Your task to perform on an android device: What's on the menu at Denny's? Image 0: 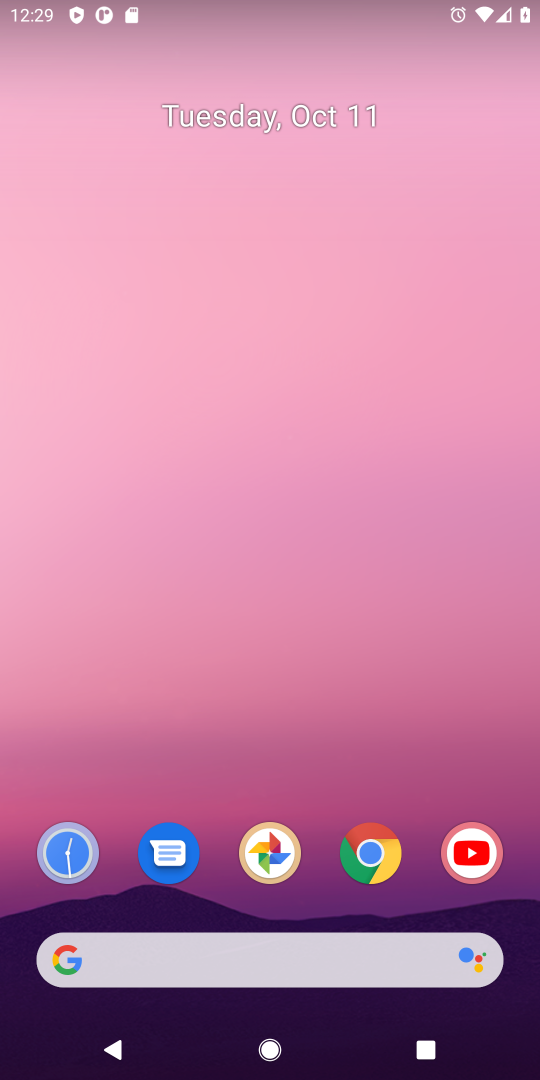
Step 0: drag from (277, 917) to (313, 22)
Your task to perform on an android device: What's on the menu at Denny's? Image 1: 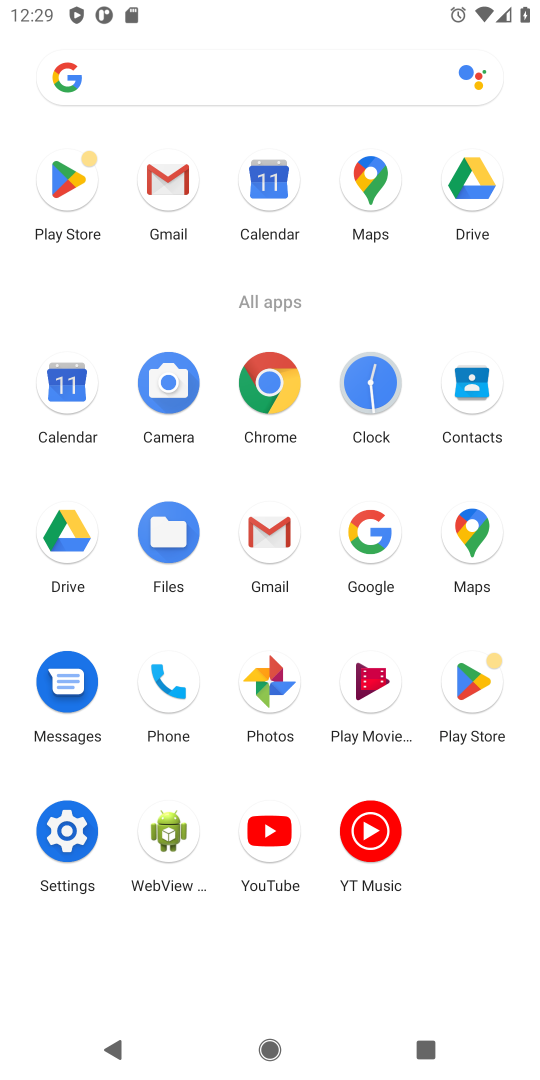
Step 1: click (257, 390)
Your task to perform on an android device: What's on the menu at Denny's? Image 2: 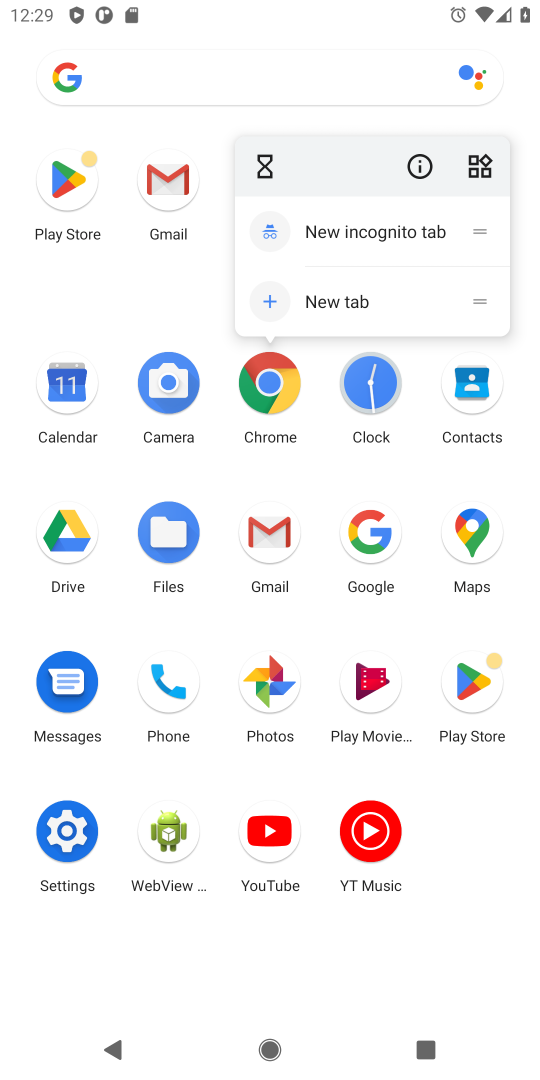
Step 2: click (264, 409)
Your task to perform on an android device: What's on the menu at Denny's? Image 3: 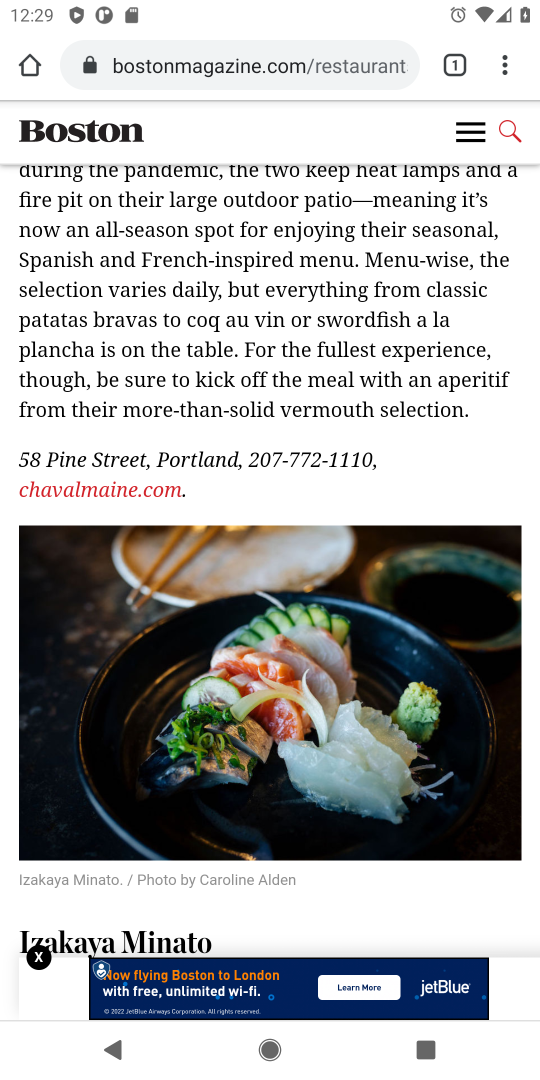
Step 3: click (252, 43)
Your task to perform on an android device: What's on the menu at Denny's? Image 4: 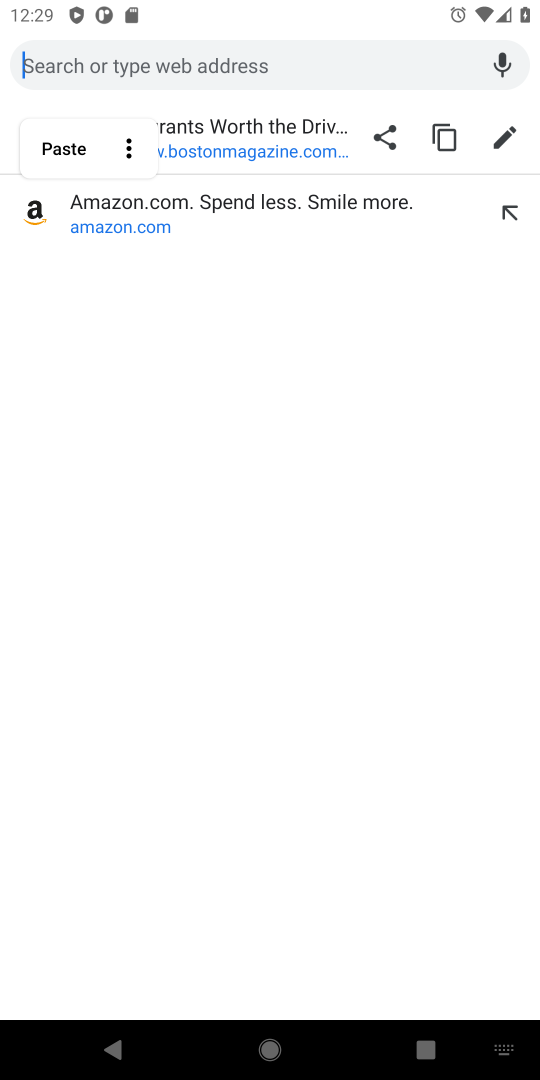
Step 4: type "What's on the menu at Denny's?"
Your task to perform on an android device: What's on the menu at Denny's? Image 5: 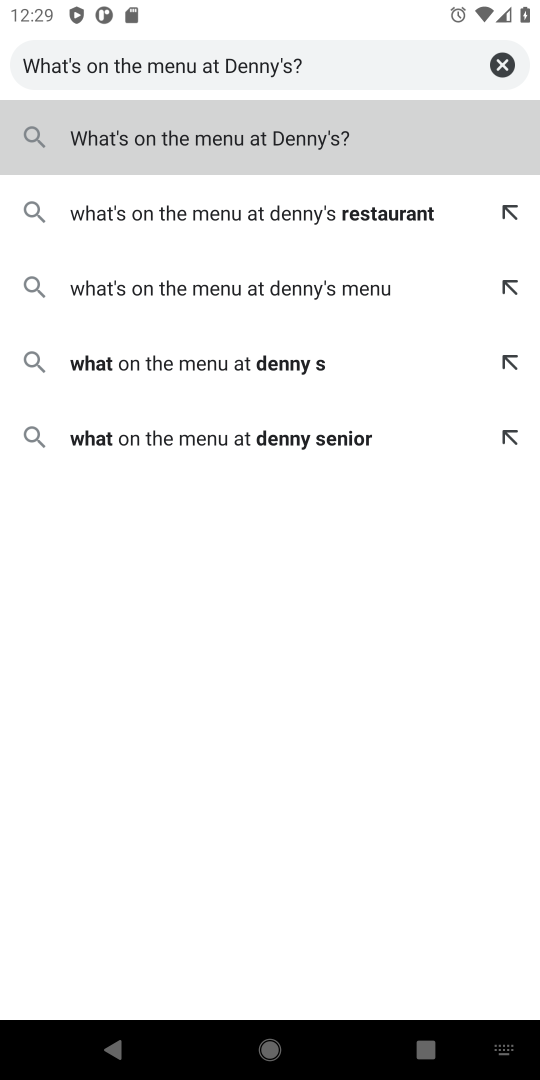
Step 5: type ""
Your task to perform on an android device: What's on the menu at Denny's? Image 6: 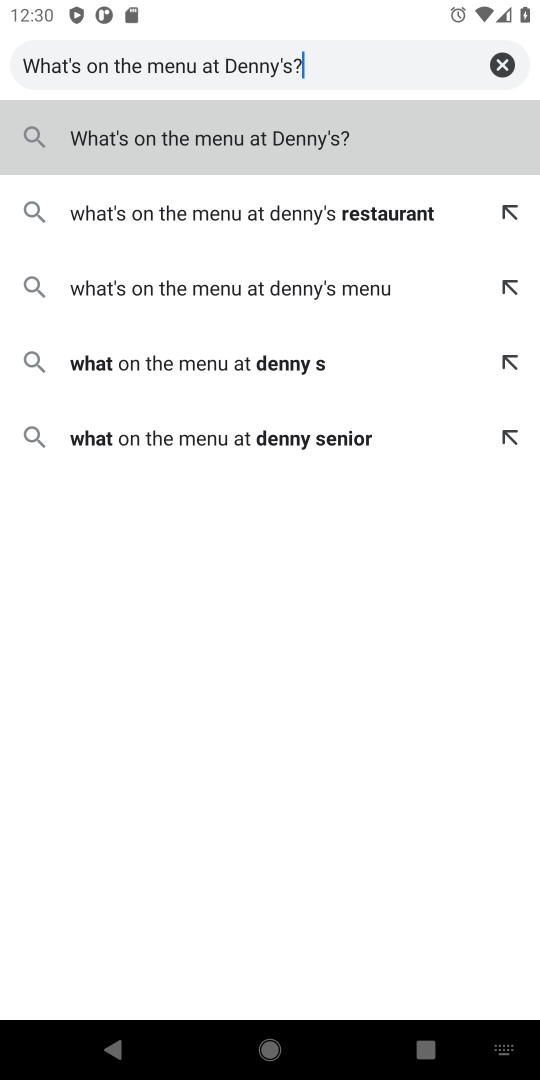
Step 6: click (359, 141)
Your task to perform on an android device: What's on the menu at Denny's? Image 7: 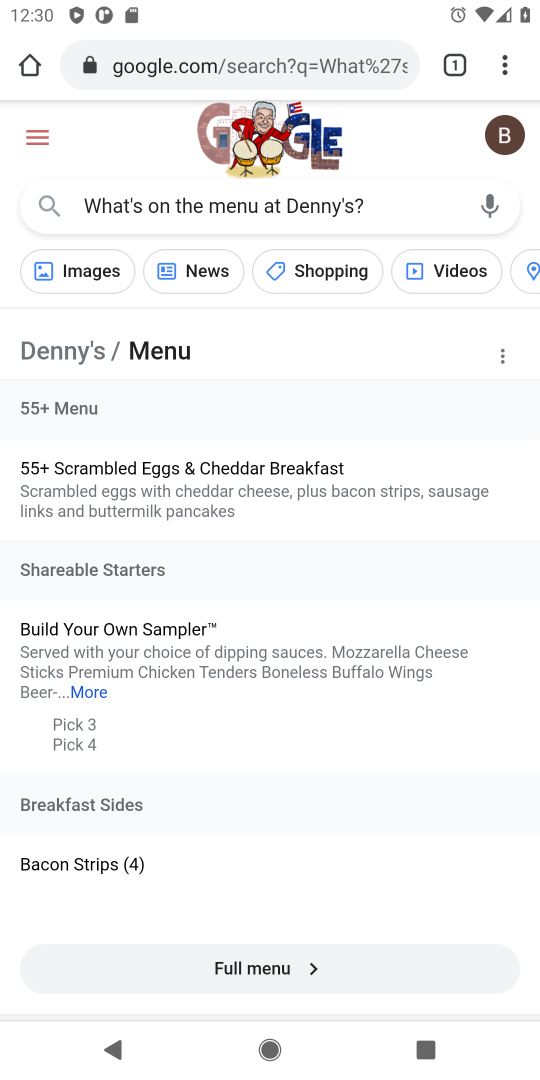
Step 7: drag from (210, 649) to (188, 202)
Your task to perform on an android device: What's on the menu at Denny's? Image 8: 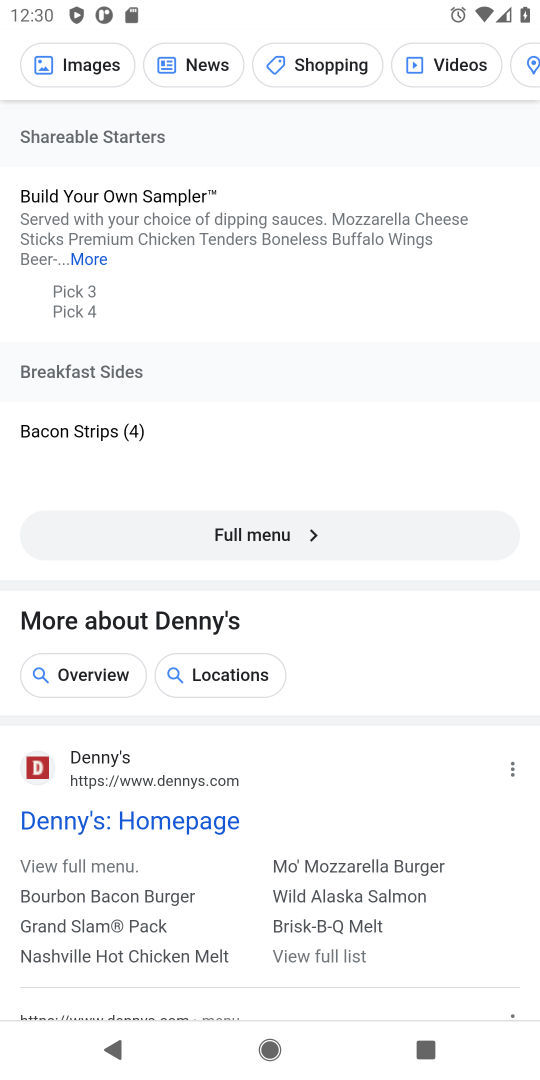
Step 8: click (91, 804)
Your task to perform on an android device: What's on the menu at Denny's? Image 9: 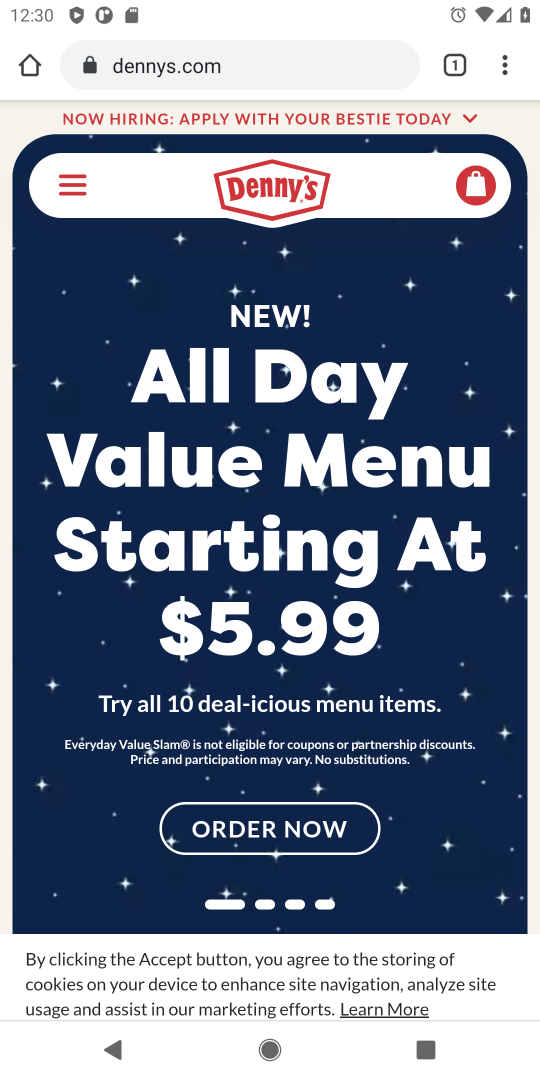
Step 9: drag from (113, 831) to (113, 279)
Your task to perform on an android device: What's on the menu at Denny's? Image 10: 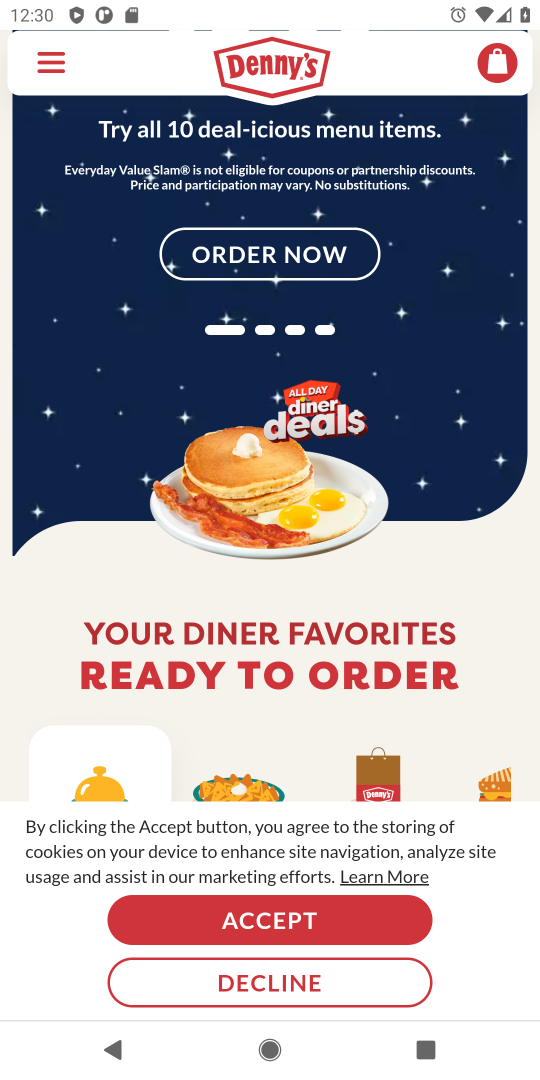
Step 10: click (193, 984)
Your task to perform on an android device: What's on the menu at Denny's? Image 11: 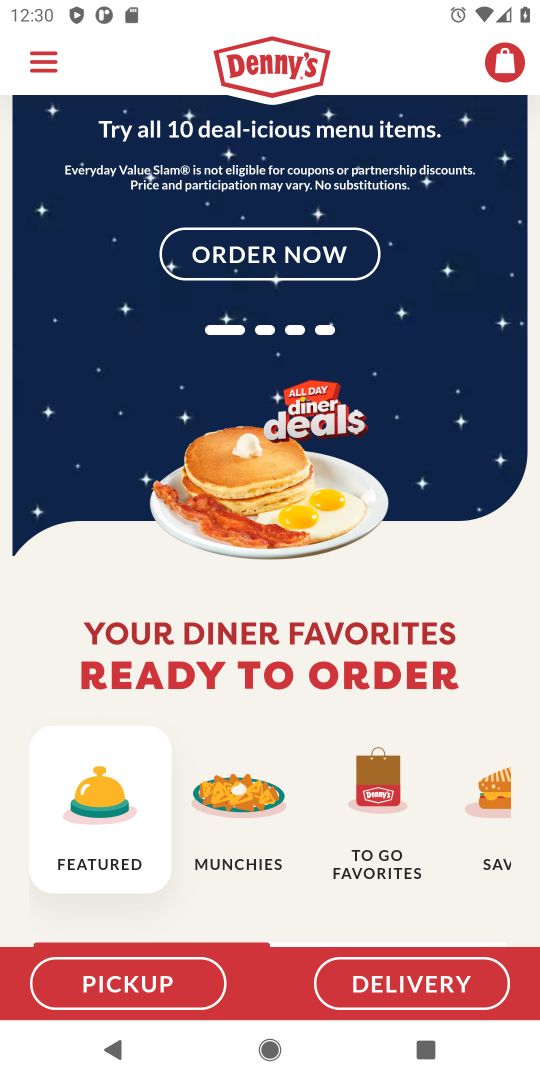
Step 11: drag from (202, 860) to (223, 644)
Your task to perform on an android device: What's on the menu at Denny's? Image 12: 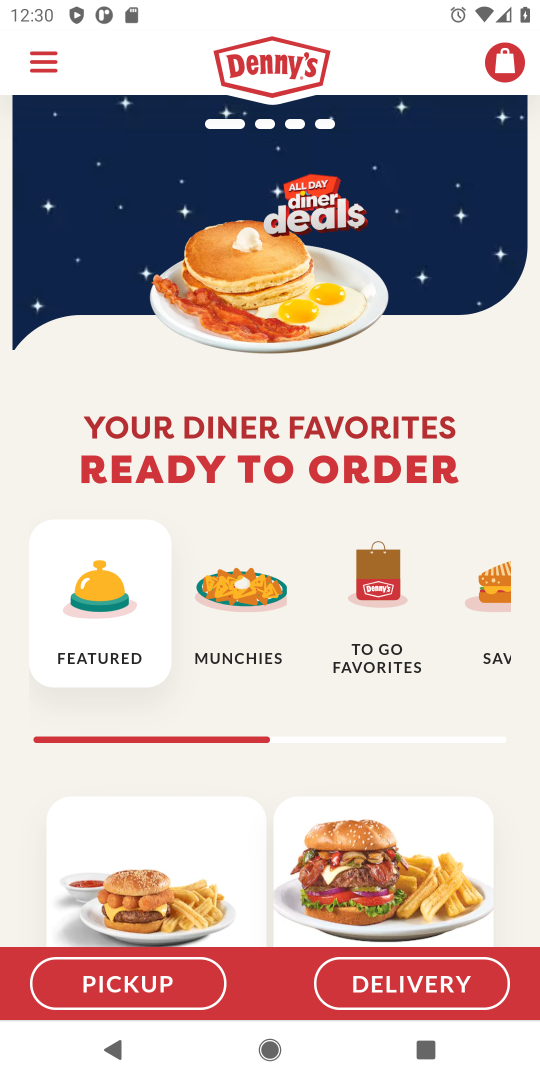
Step 12: click (22, 83)
Your task to perform on an android device: What's on the menu at Denny's? Image 13: 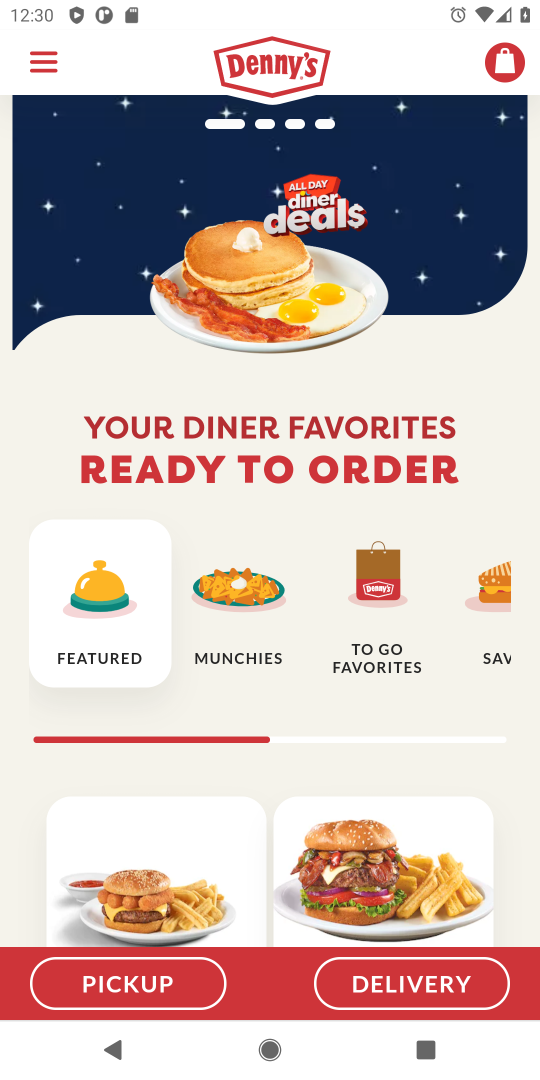
Step 13: click (35, 65)
Your task to perform on an android device: What's on the menu at Denny's? Image 14: 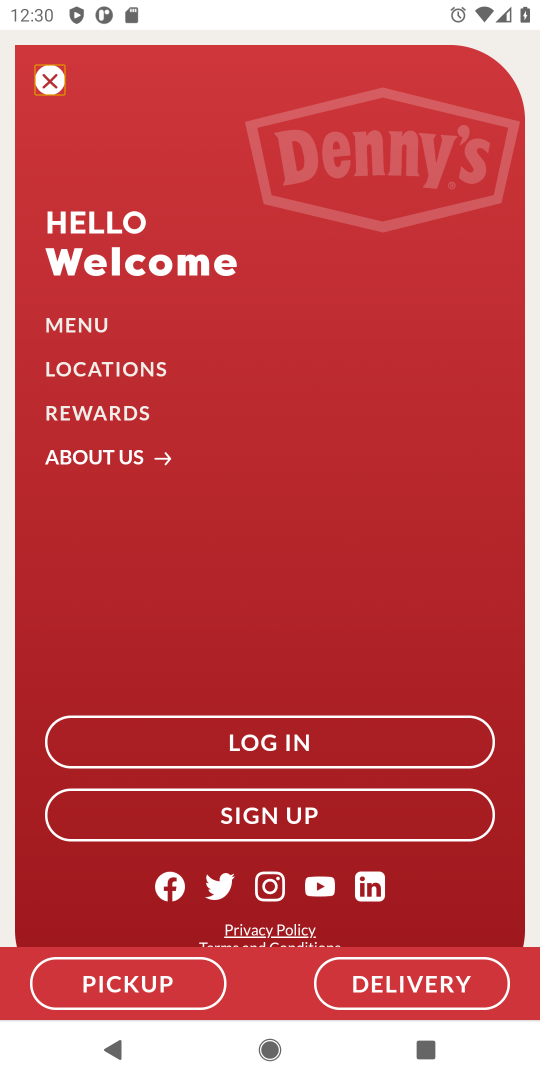
Step 14: click (66, 322)
Your task to perform on an android device: What's on the menu at Denny's? Image 15: 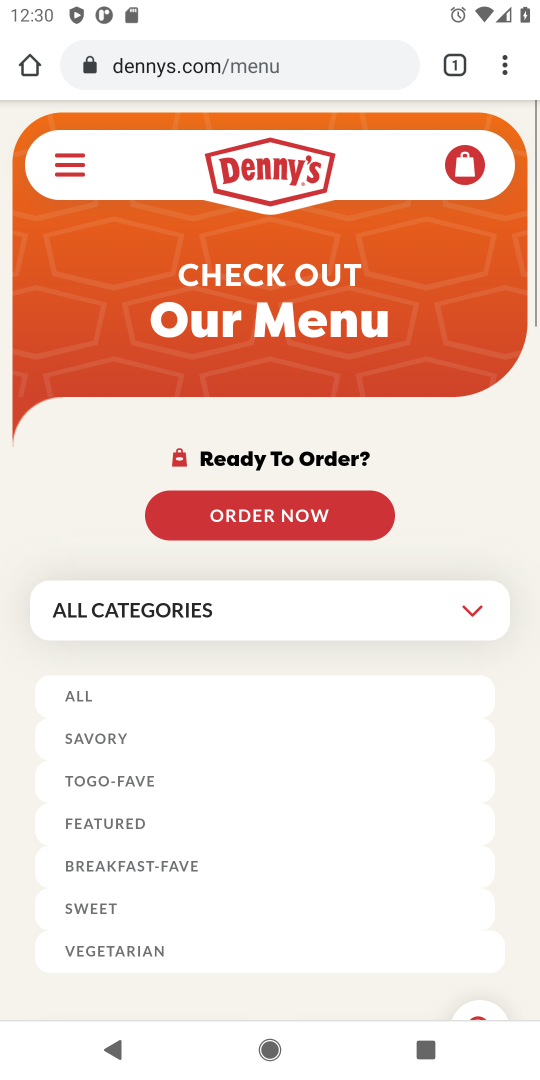
Step 15: click (115, 715)
Your task to perform on an android device: What's on the menu at Denny's? Image 16: 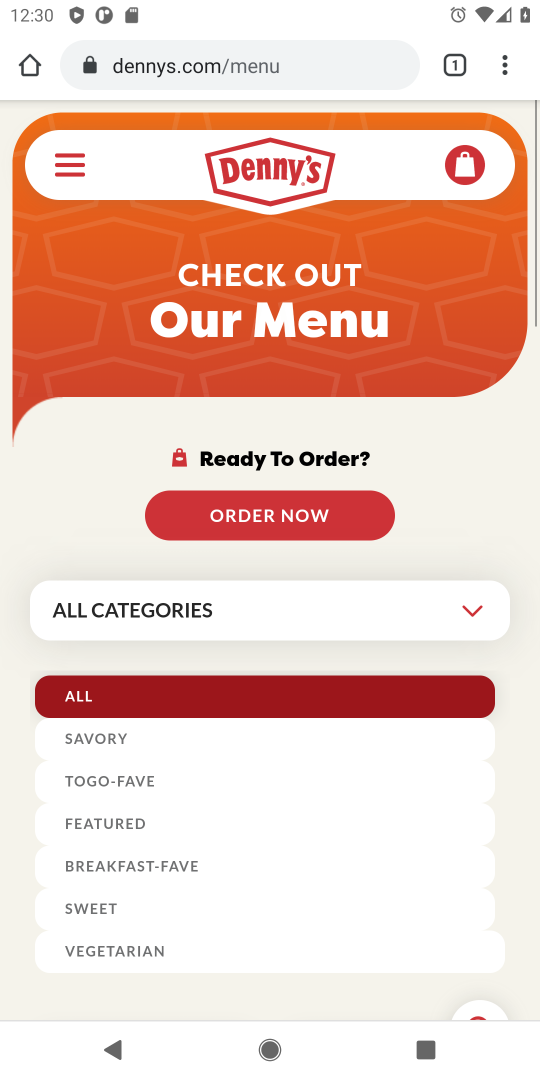
Step 16: drag from (429, 980) to (393, 30)
Your task to perform on an android device: What's on the menu at Denny's? Image 17: 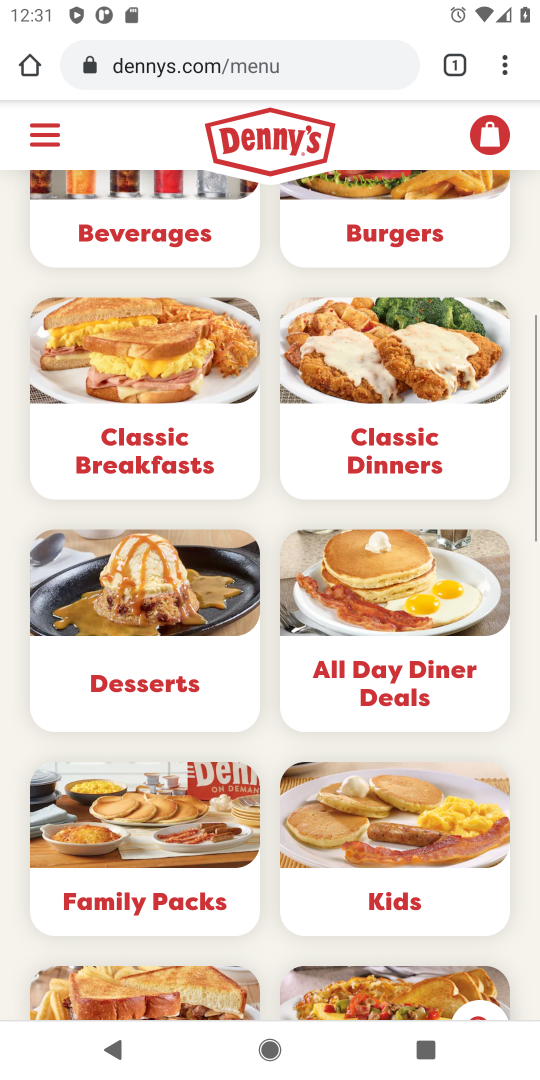
Step 17: click (179, 230)
Your task to perform on an android device: What's on the menu at Denny's? Image 18: 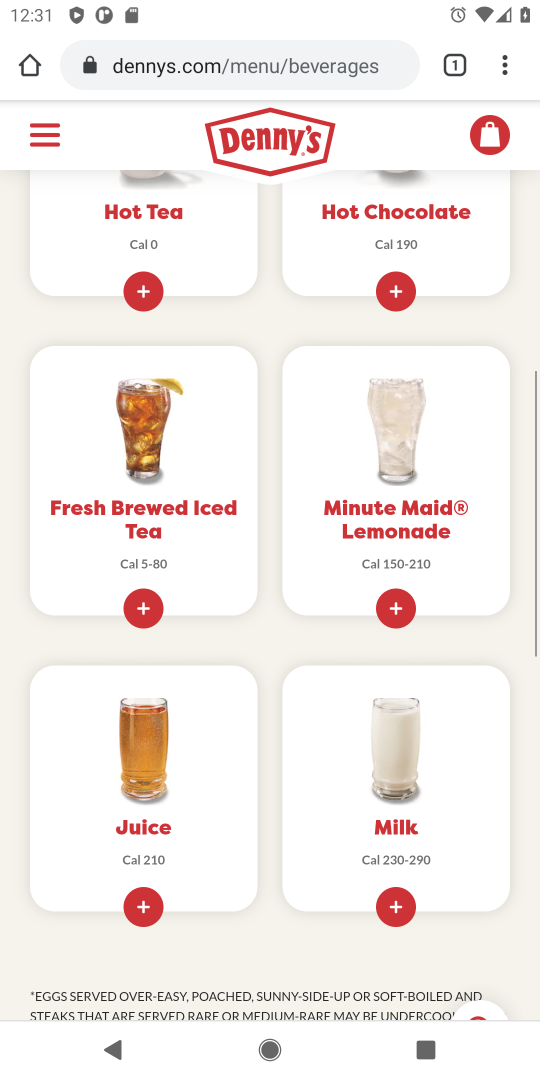
Step 18: drag from (293, 267) to (246, 944)
Your task to perform on an android device: What's on the menu at Denny's? Image 19: 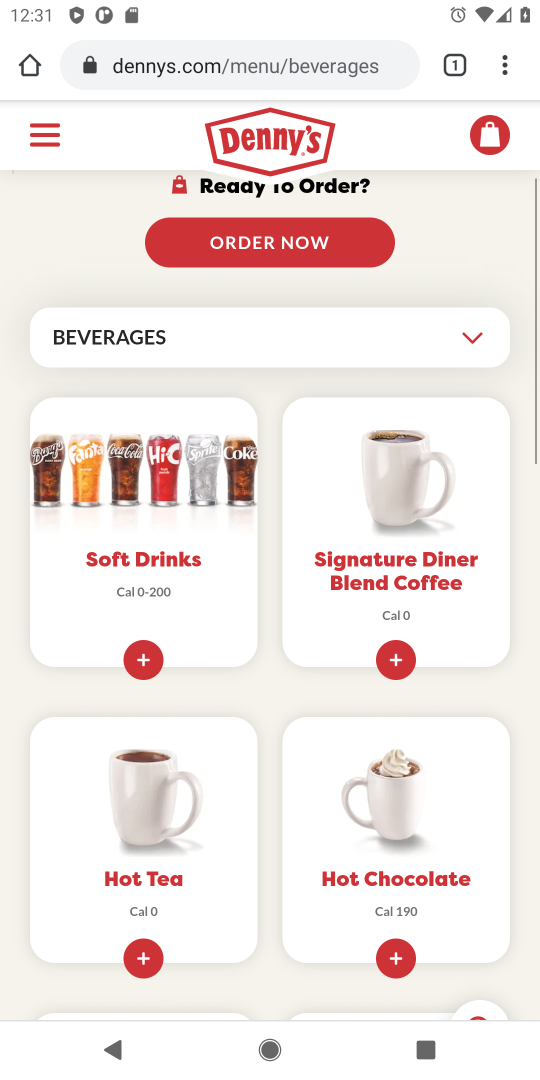
Step 19: click (217, 329)
Your task to perform on an android device: What's on the menu at Denny's? Image 20: 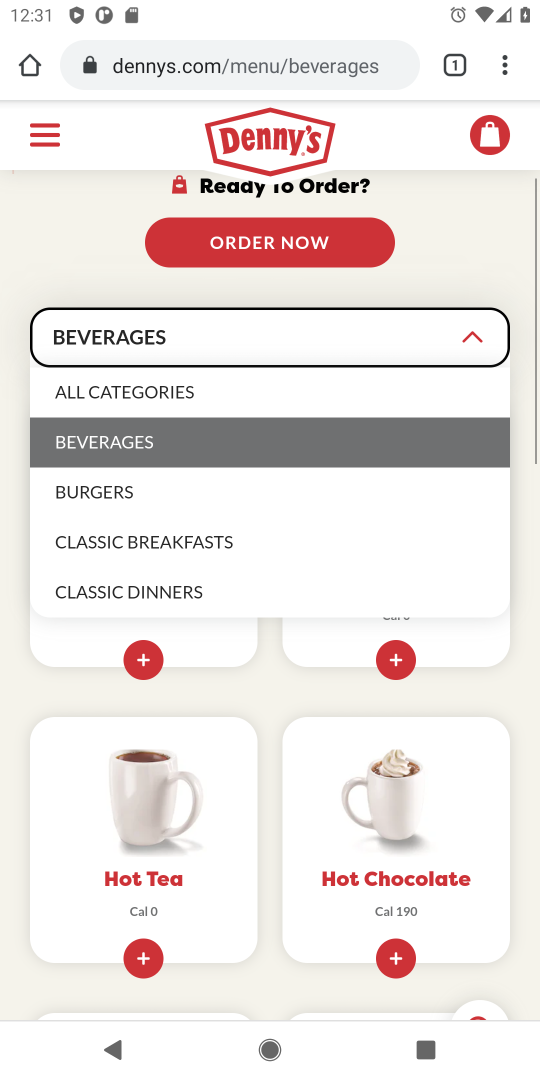
Step 20: click (208, 503)
Your task to perform on an android device: What's on the menu at Denny's? Image 21: 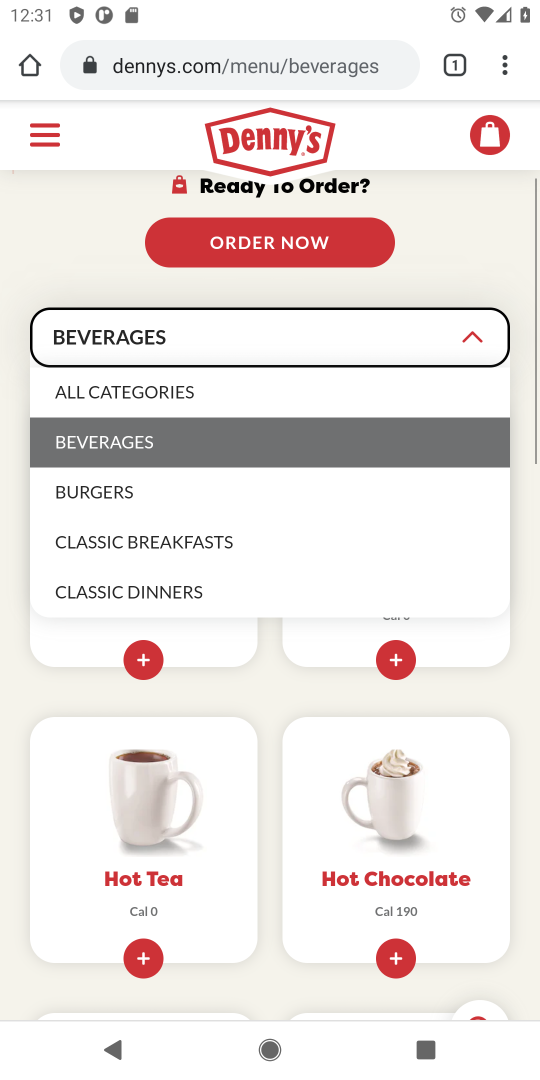
Step 21: click (62, 484)
Your task to perform on an android device: What's on the menu at Denny's? Image 22: 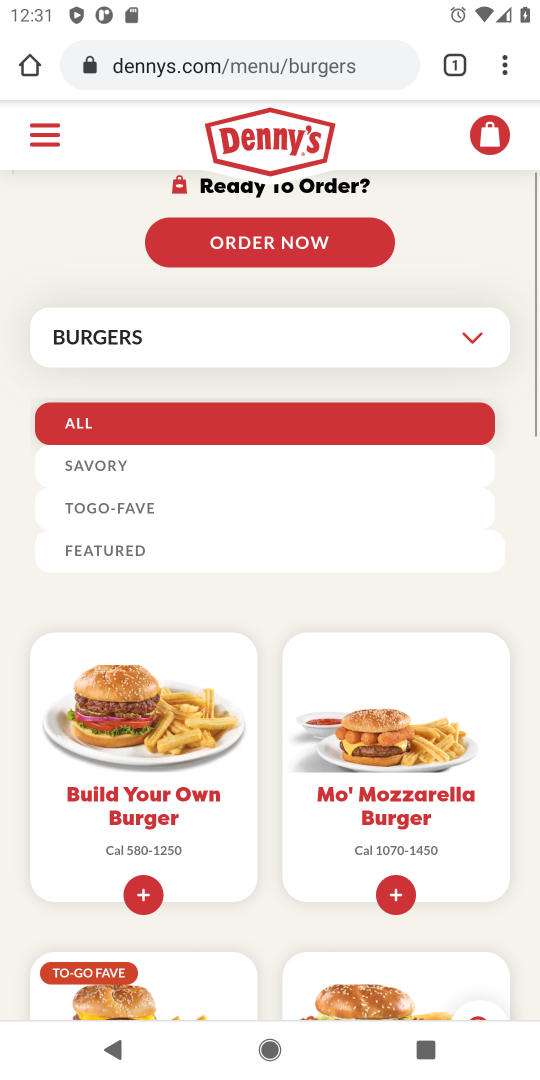
Step 22: drag from (294, 990) to (285, 560)
Your task to perform on an android device: What's on the menu at Denny's? Image 23: 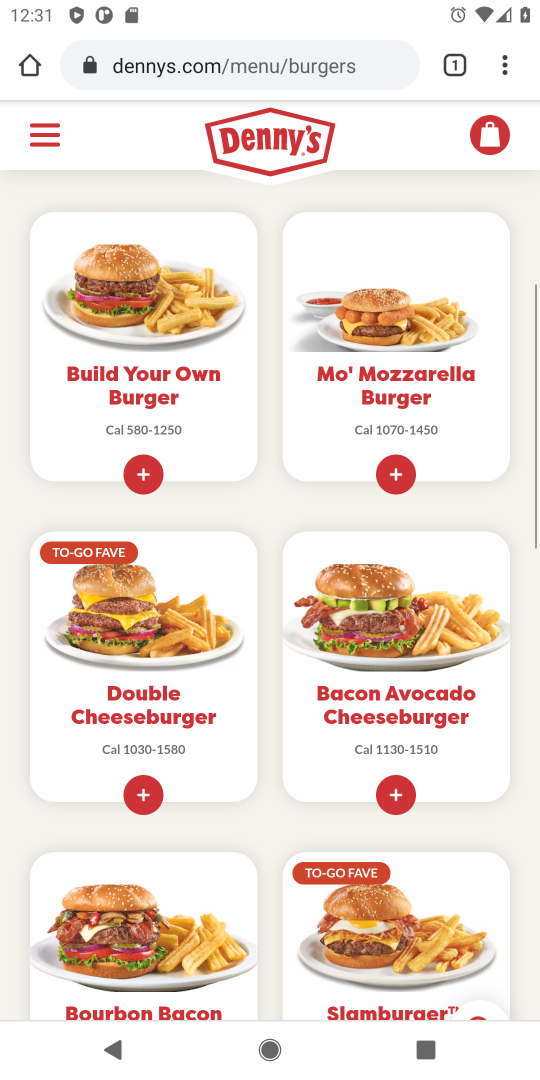
Step 23: click (139, 465)
Your task to perform on an android device: What's on the menu at Denny's? Image 24: 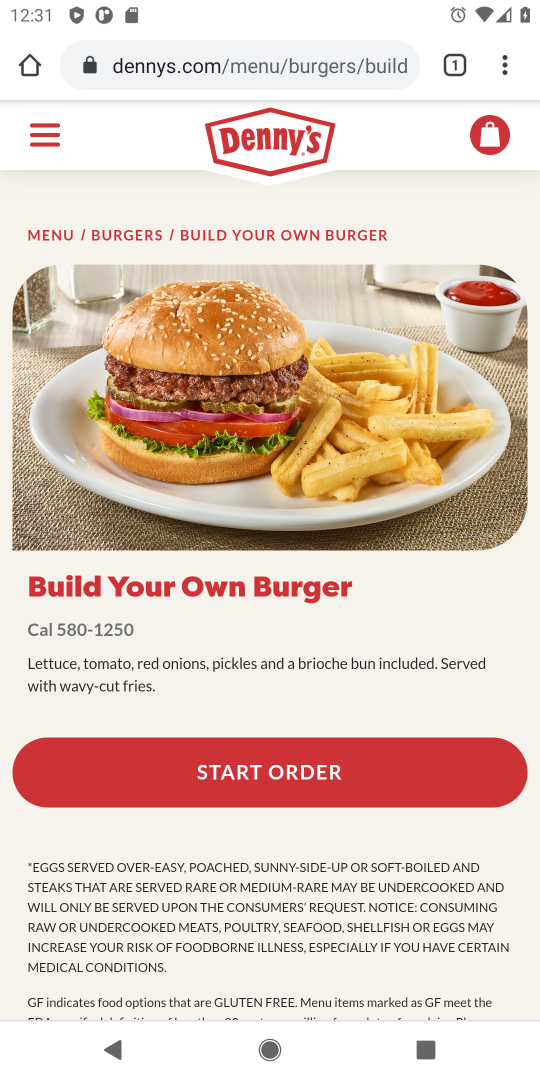
Step 24: drag from (278, 684) to (237, 199)
Your task to perform on an android device: What's on the menu at Denny's? Image 25: 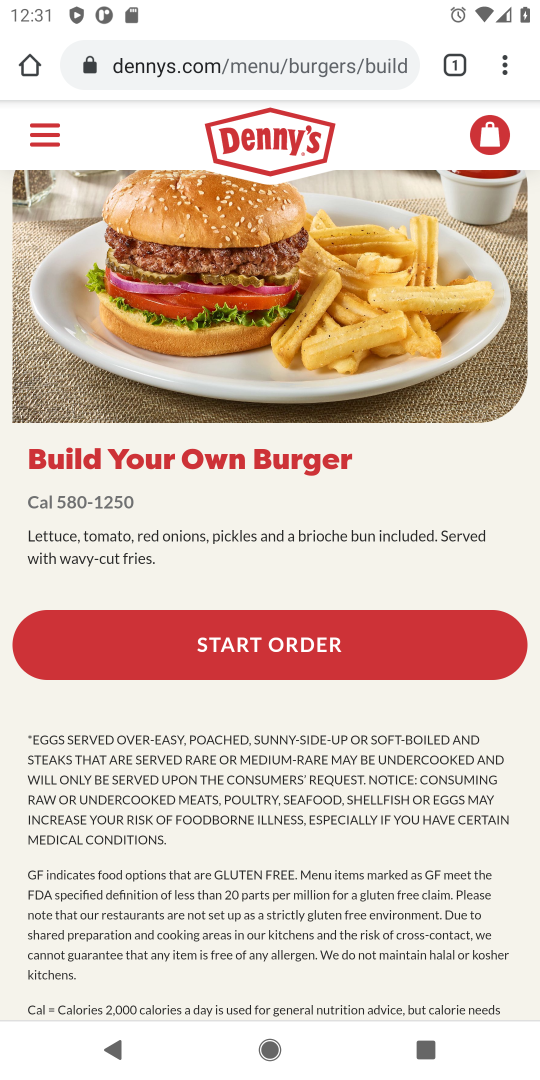
Step 25: drag from (313, 821) to (320, 344)
Your task to perform on an android device: What's on the menu at Denny's? Image 26: 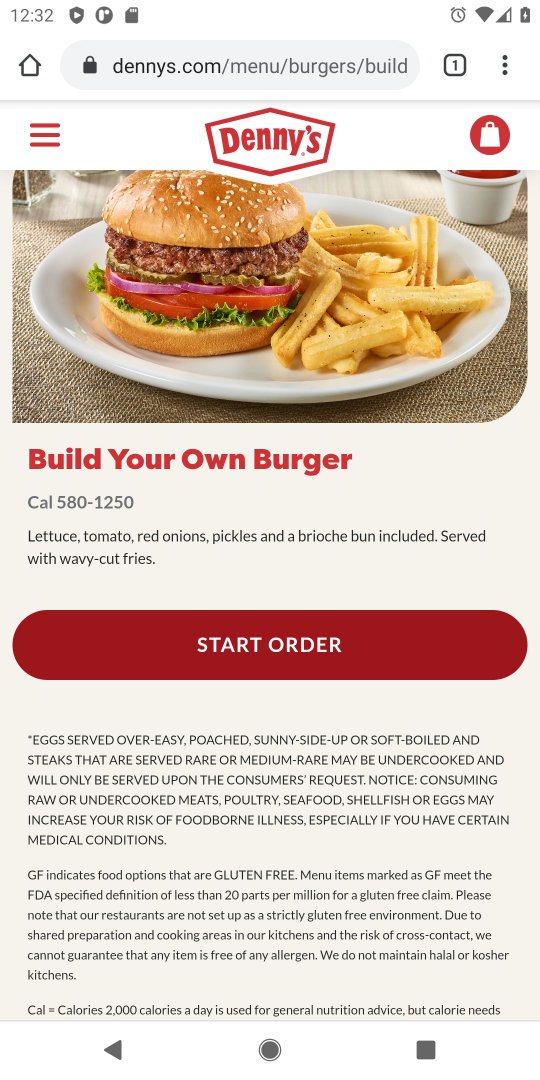
Step 26: drag from (162, 752) to (195, 317)
Your task to perform on an android device: What's on the menu at Denny's? Image 27: 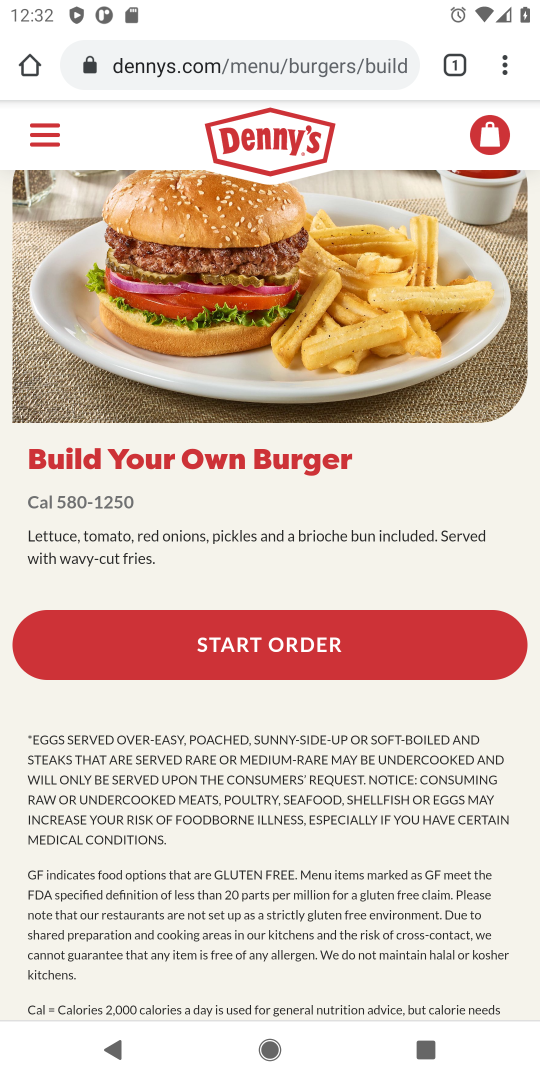
Step 27: drag from (175, 573) to (271, 249)
Your task to perform on an android device: What's on the menu at Denny's? Image 28: 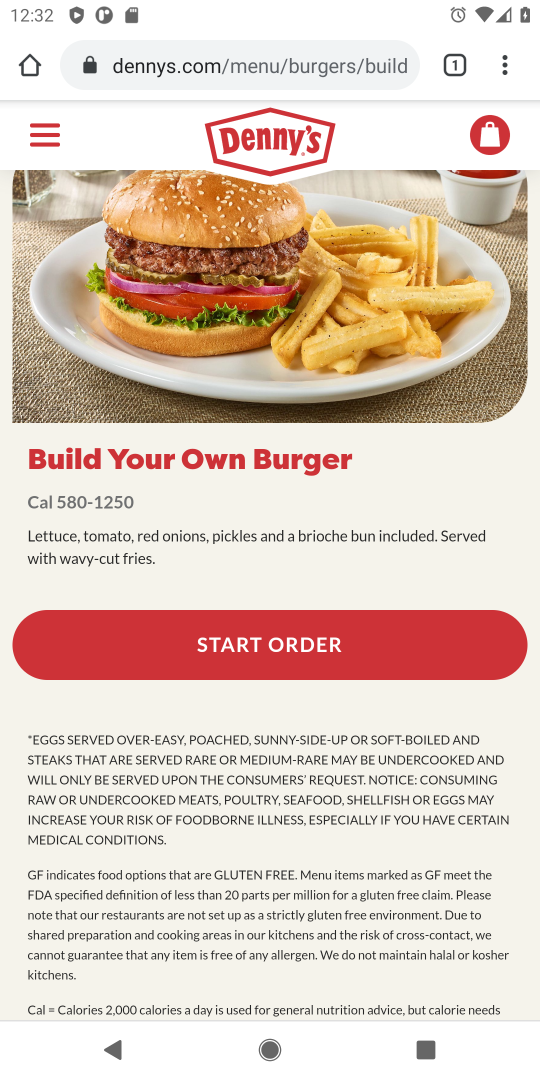
Step 28: drag from (301, 577) to (267, 97)
Your task to perform on an android device: What's on the menu at Denny's? Image 29: 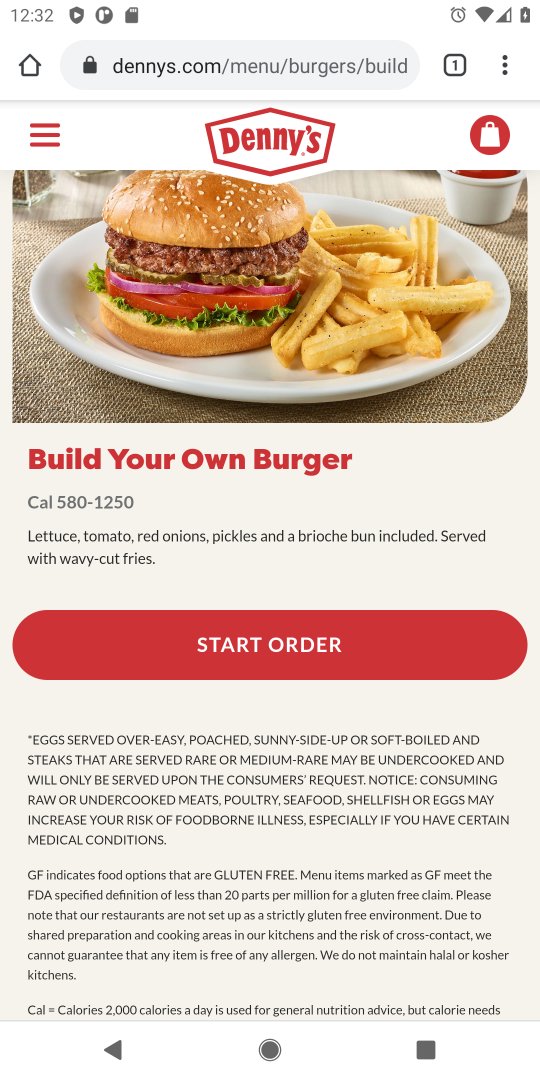
Step 29: drag from (371, 224) to (405, 129)
Your task to perform on an android device: What's on the menu at Denny's? Image 30: 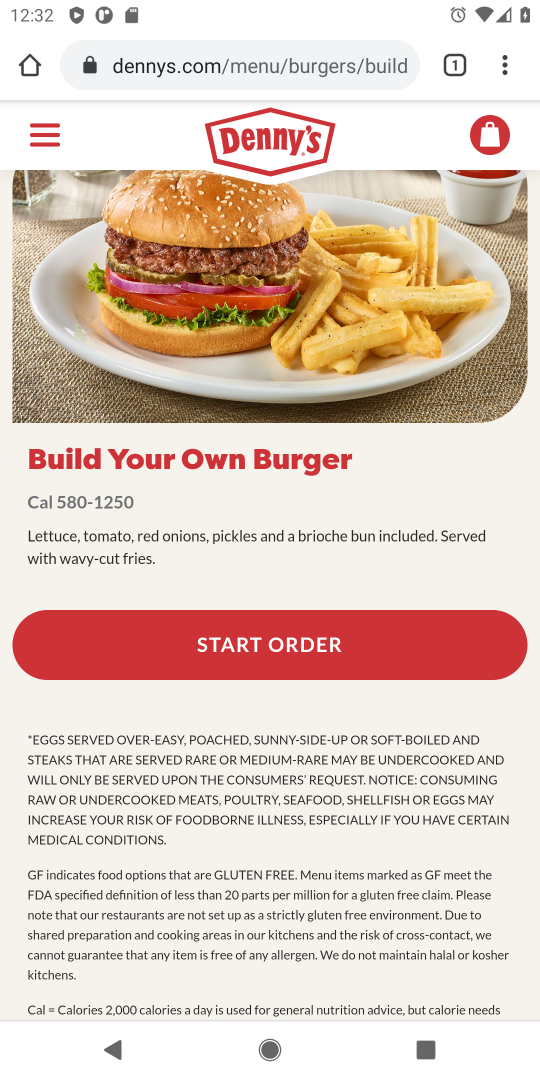
Step 30: drag from (397, 671) to (413, 370)
Your task to perform on an android device: What's on the menu at Denny's? Image 31: 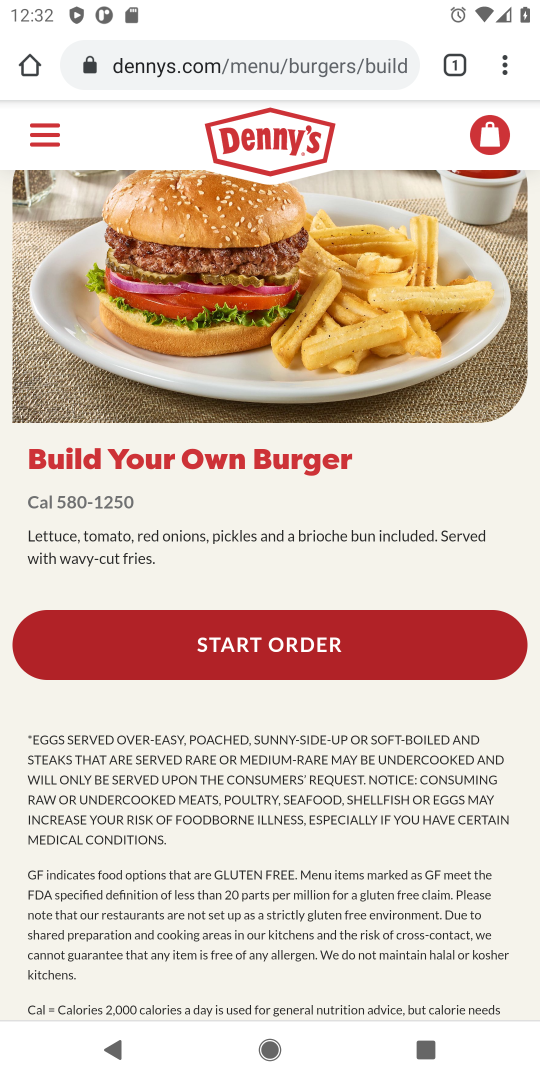
Step 31: drag from (403, 231) to (308, 844)
Your task to perform on an android device: What's on the menu at Denny's? Image 32: 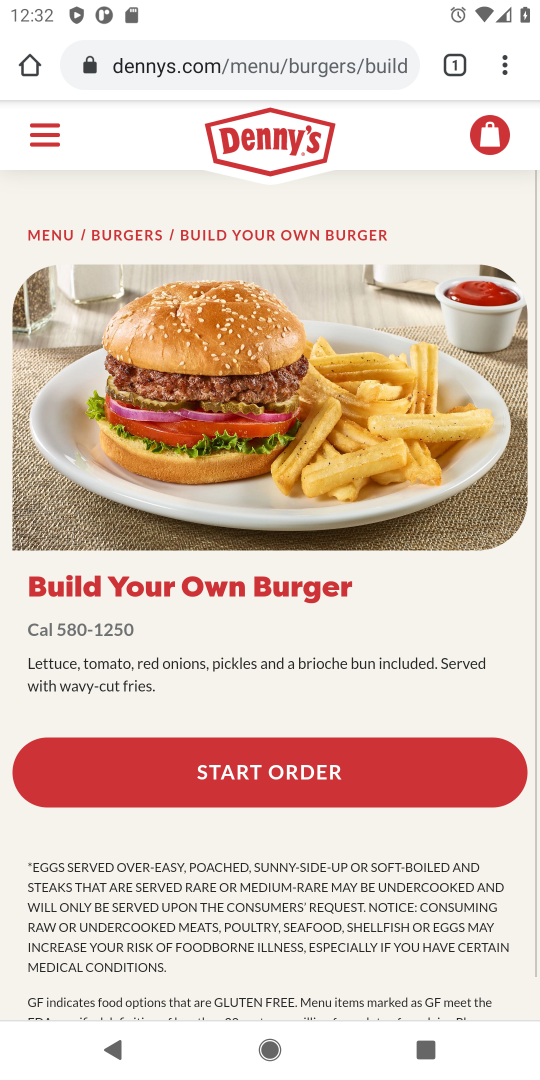
Step 32: drag from (296, 447) to (263, 734)
Your task to perform on an android device: What's on the menu at Denny's? Image 33: 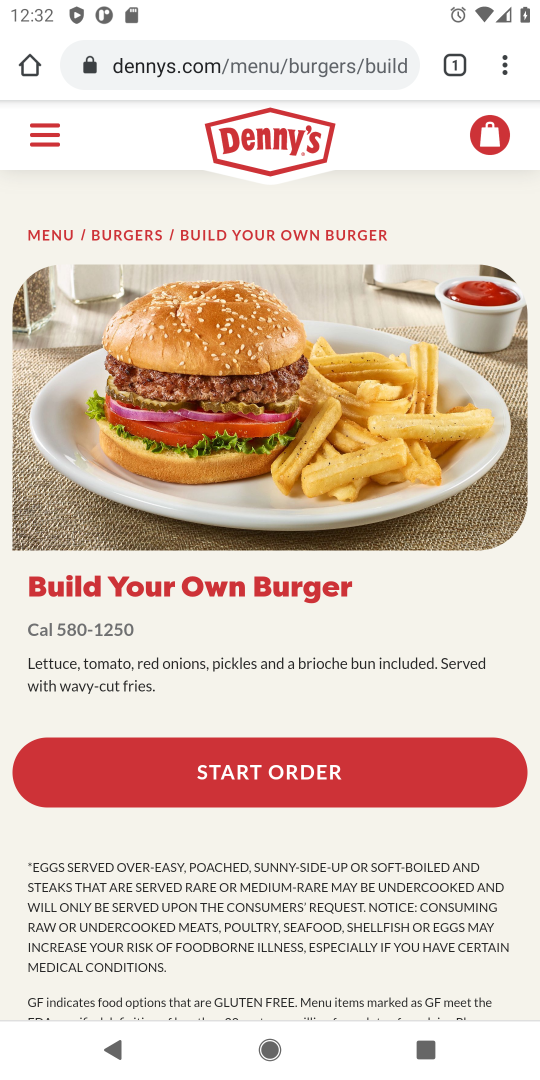
Step 33: drag from (299, 543) to (270, 772)
Your task to perform on an android device: What's on the menu at Denny's? Image 34: 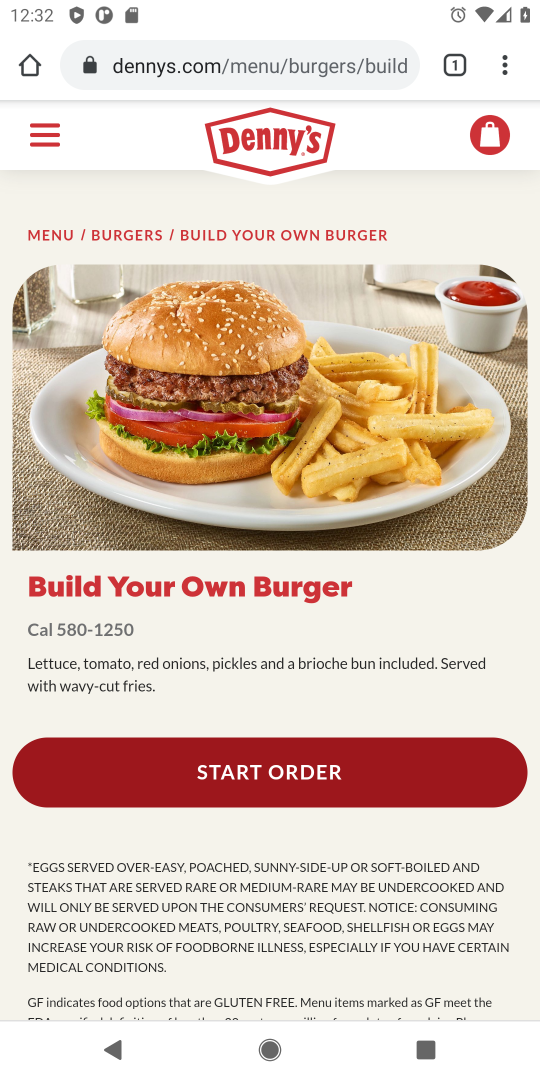
Step 34: drag from (328, 532) to (299, 821)
Your task to perform on an android device: What's on the menu at Denny's? Image 35: 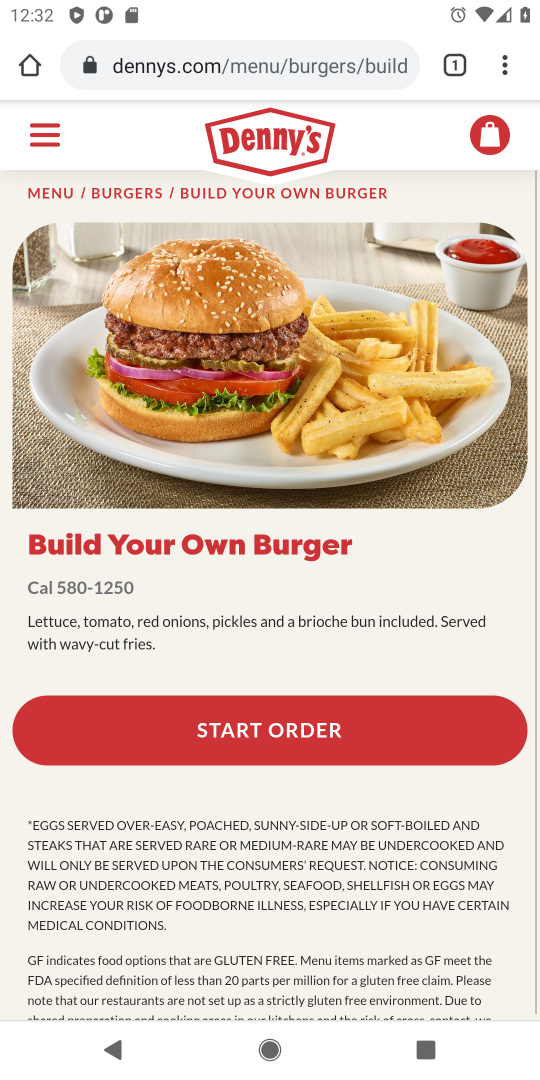
Step 35: drag from (303, 590) to (294, 775)
Your task to perform on an android device: What's on the menu at Denny's? Image 36: 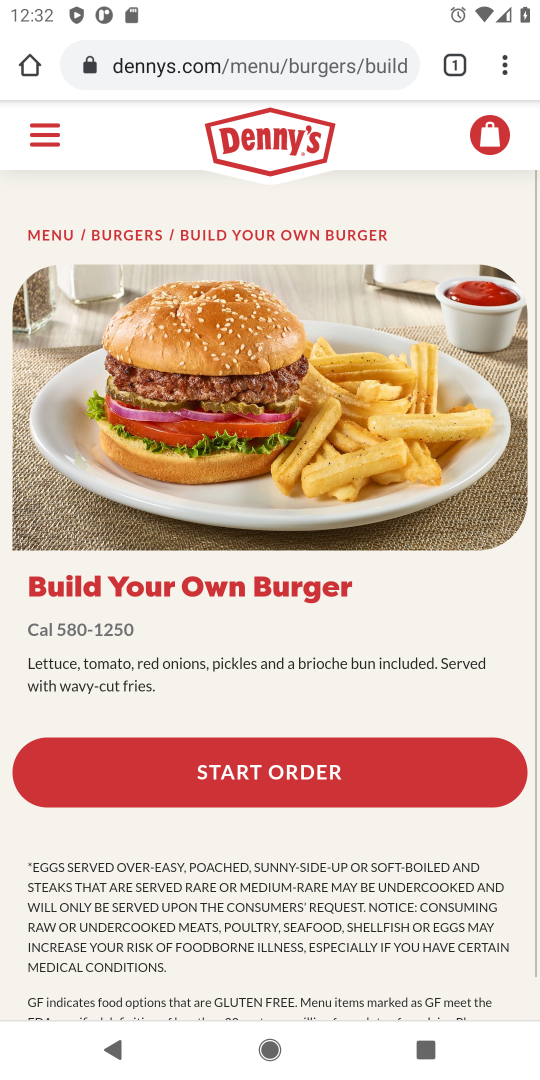
Step 36: drag from (321, 506) to (278, 817)
Your task to perform on an android device: What's on the menu at Denny's? Image 37: 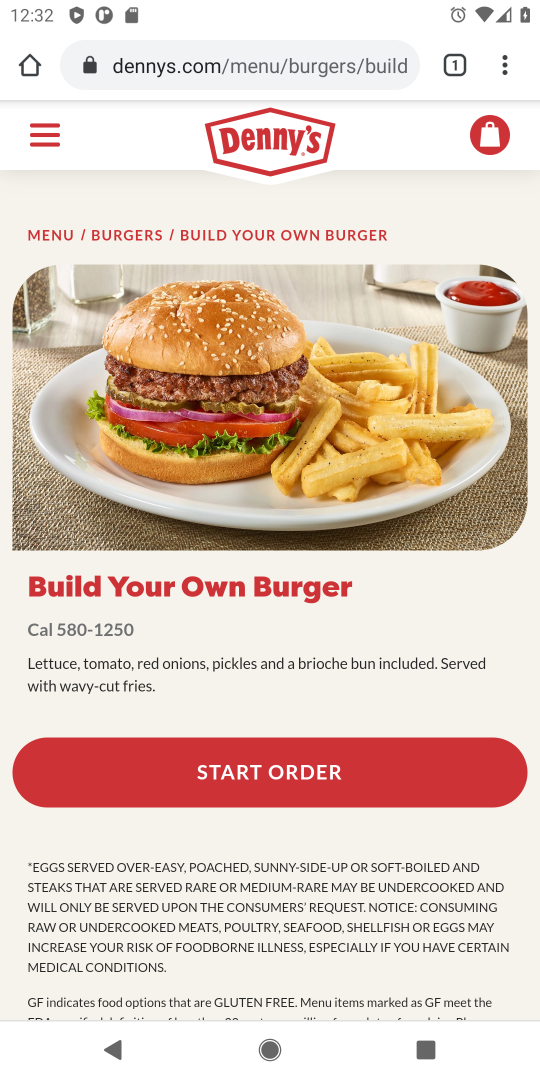
Step 37: drag from (296, 491) to (238, 918)
Your task to perform on an android device: What's on the menu at Denny's? Image 38: 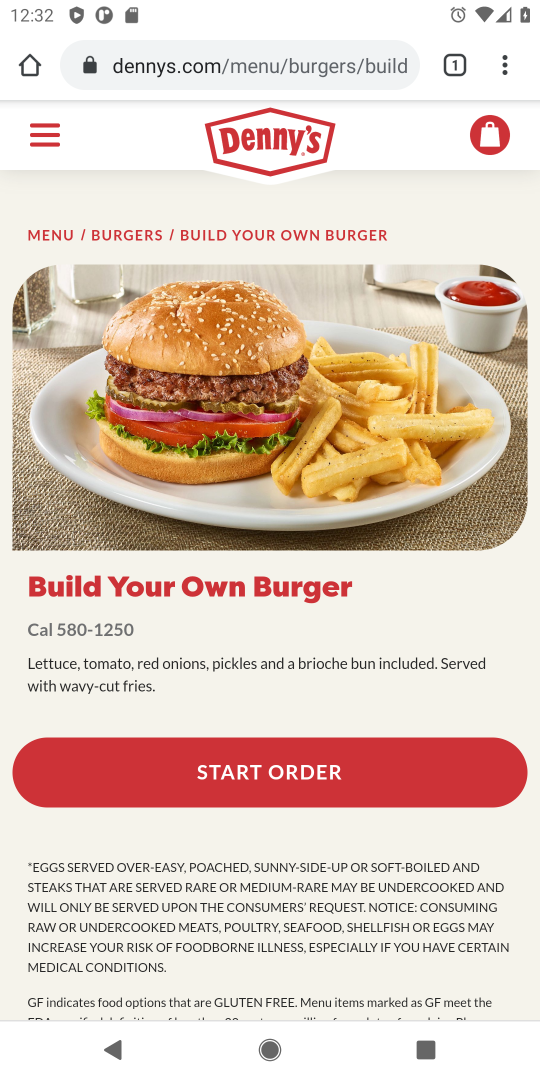
Step 38: drag from (258, 624) to (243, 774)
Your task to perform on an android device: What's on the menu at Denny's? Image 39: 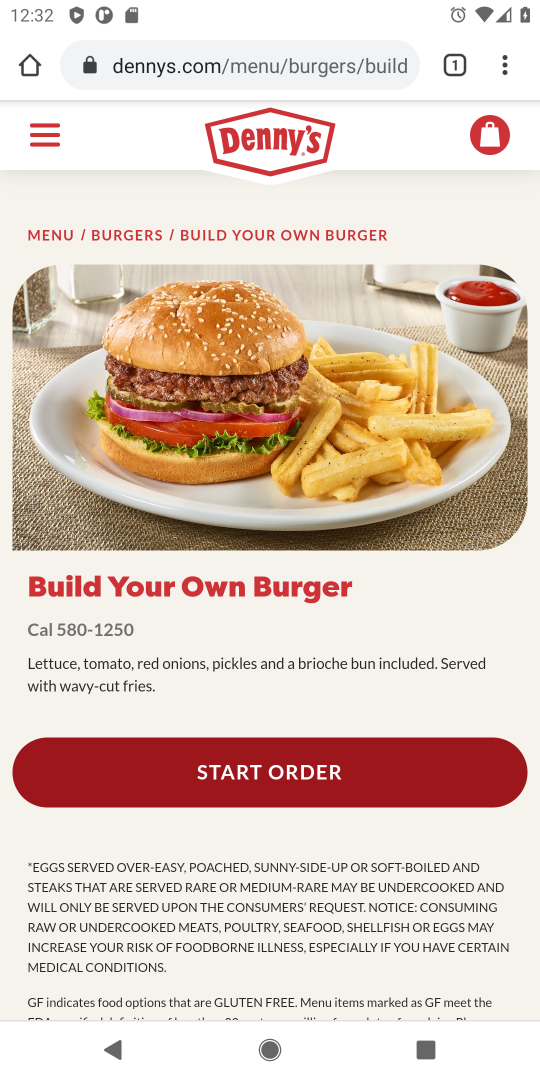
Step 39: press back button
Your task to perform on an android device: What's on the menu at Denny's? Image 40: 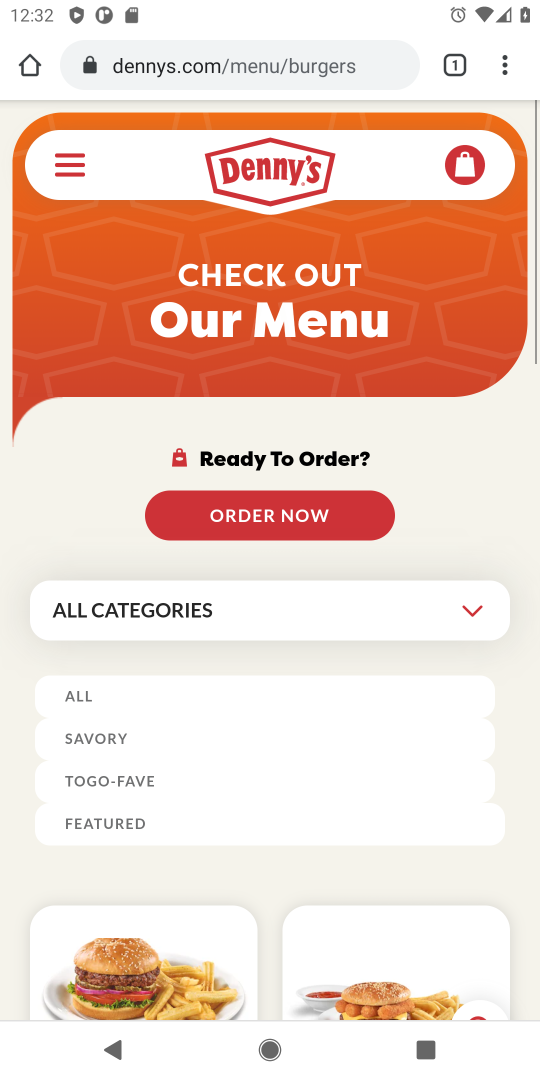
Step 40: drag from (225, 834) to (402, 192)
Your task to perform on an android device: What's on the menu at Denny's? Image 41: 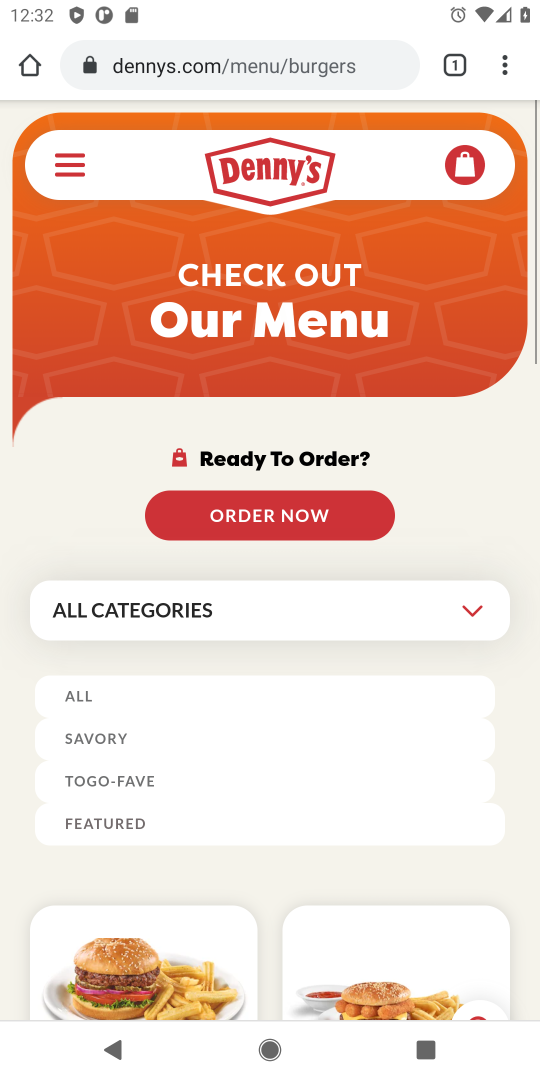
Step 41: drag from (349, 698) to (380, 397)
Your task to perform on an android device: What's on the menu at Denny's? Image 42: 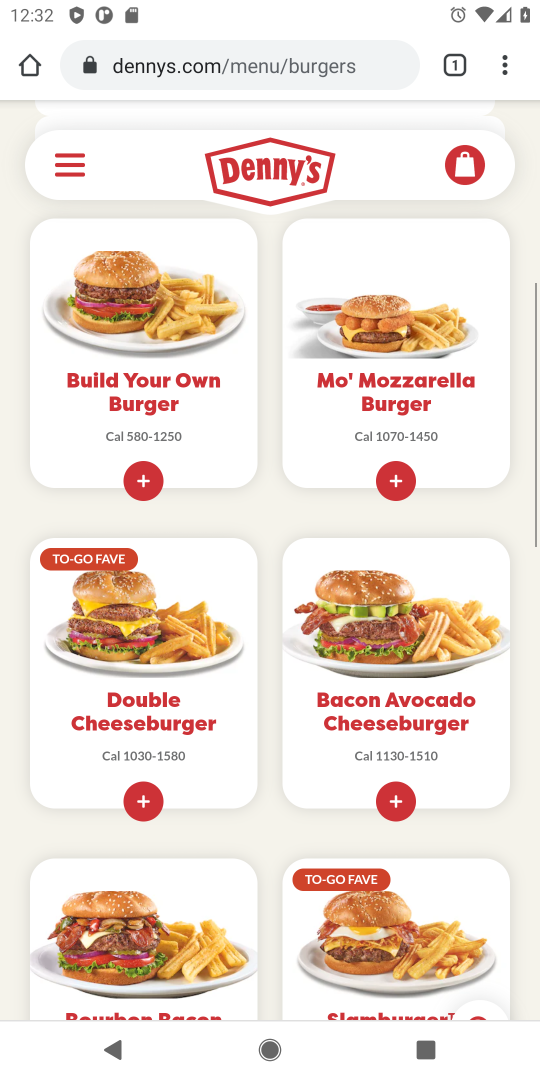
Step 42: drag from (368, 661) to (376, 492)
Your task to perform on an android device: What's on the menu at Denny's? Image 43: 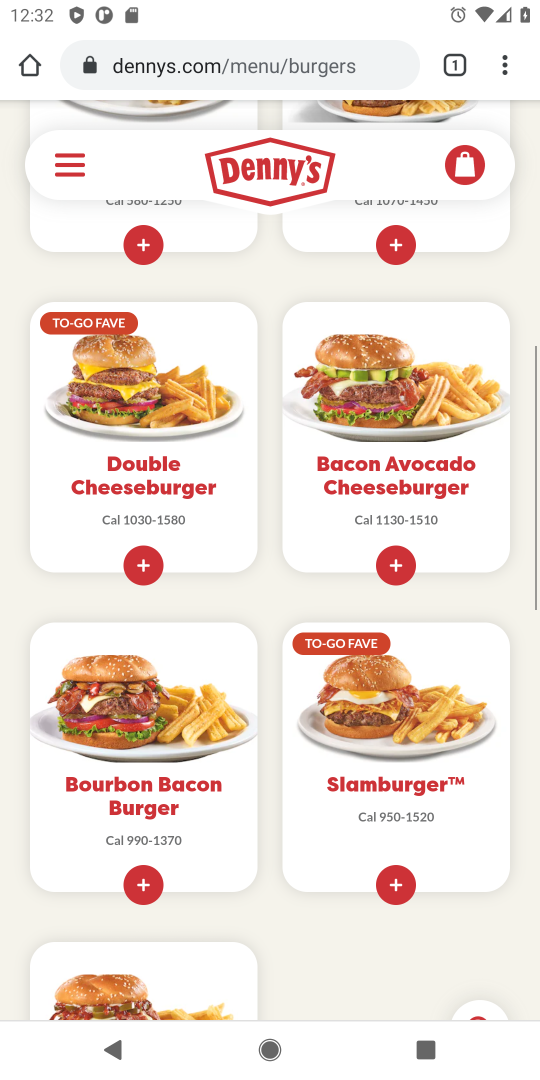
Step 43: click (401, 168)
Your task to perform on an android device: What's on the menu at Denny's? Image 44: 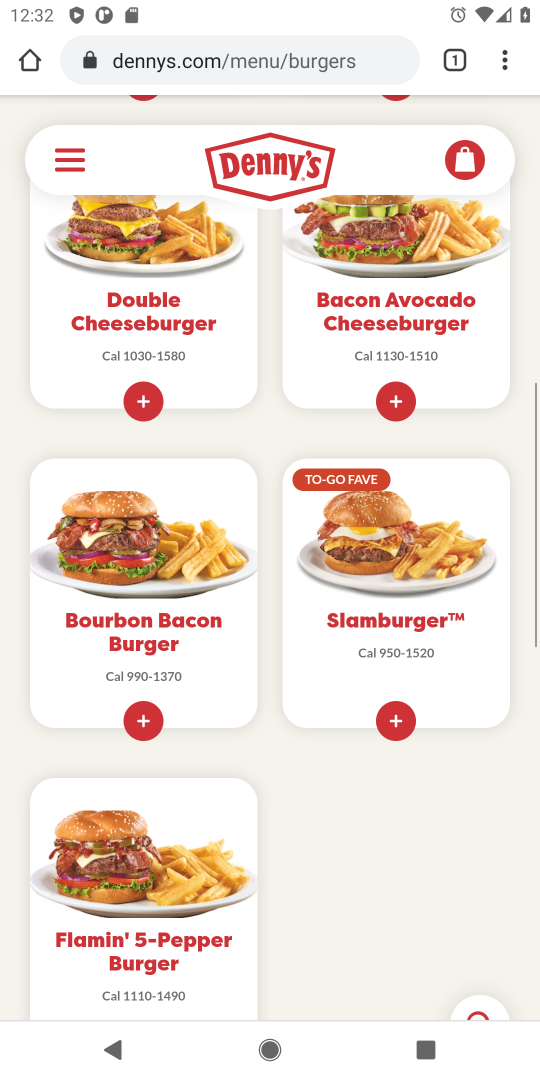
Step 44: task complete